Your task to perform on an android device: Clear all items from cart on ebay. Search for razer deathadder on ebay, select the first entry, add it to the cart, then select checkout. Image 0: 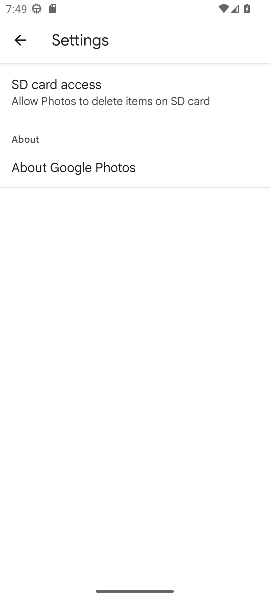
Step 0: press home button
Your task to perform on an android device: Clear all items from cart on ebay. Search for razer deathadder on ebay, select the first entry, add it to the cart, then select checkout. Image 1: 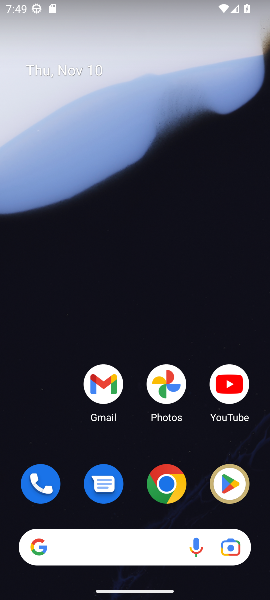
Step 1: click (166, 487)
Your task to perform on an android device: Clear all items from cart on ebay. Search for razer deathadder on ebay, select the first entry, add it to the cart, then select checkout. Image 2: 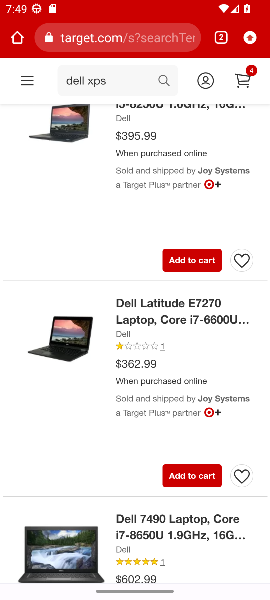
Step 2: click (102, 39)
Your task to perform on an android device: Clear all items from cart on ebay. Search for razer deathadder on ebay, select the first entry, add it to the cart, then select checkout. Image 3: 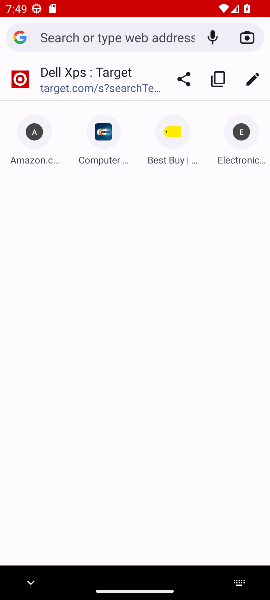
Step 3: type "ebay.com"
Your task to perform on an android device: Clear all items from cart on ebay. Search for razer deathadder on ebay, select the first entry, add it to the cart, then select checkout. Image 4: 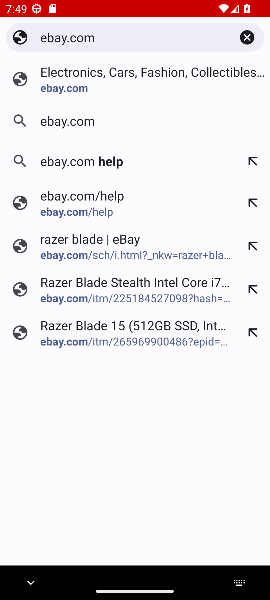
Step 4: click (69, 91)
Your task to perform on an android device: Clear all items from cart on ebay. Search for razer deathadder on ebay, select the first entry, add it to the cart, then select checkout. Image 5: 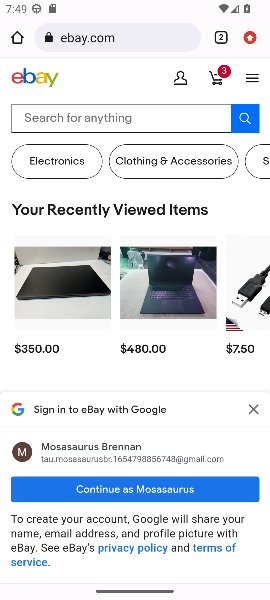
Step 5: click (219, 73)
Your task to perform on an android device: Clear all items from cart on ebay. Search for razer deathadder on ebay, select the first entry, add it to the cart, then select checkout. Image 6: 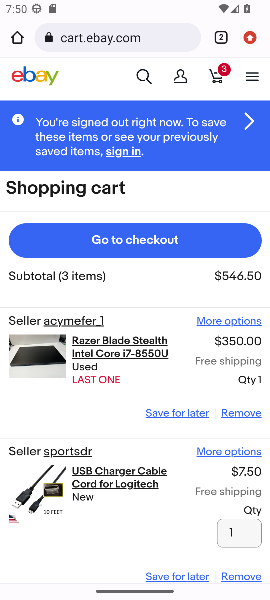
Step 6: click (243, 411)
Your task to perform on an android device: Clear all items from cart on ebay. Search for razer deathadder on ebay, select the first entry, add it to the cart, then select checkout. Image 7: 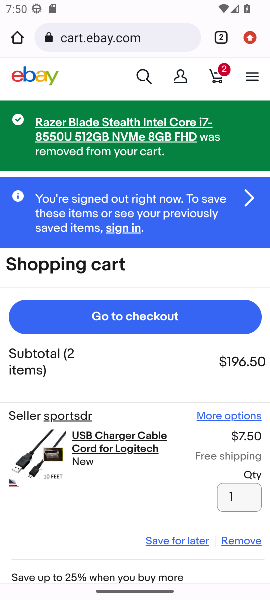
Step 7: click (232, 544)
Your task to perform on an android device: Clear all items from cart on ebay. Search for razer deathadder on ebay, select the first entry, add it to the cart, then select checkout. Image 8: 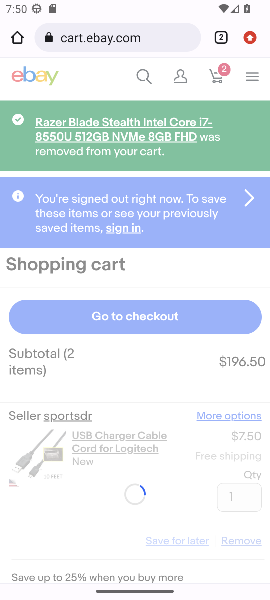
Step 8: drag from (165, 444) to (143, 303)
Your task to perform on an android device: Clear all items from cart on ebay. Search for razer deathadder on ebay, select the first entry, add it to the cart, then select checkout. Image 9: 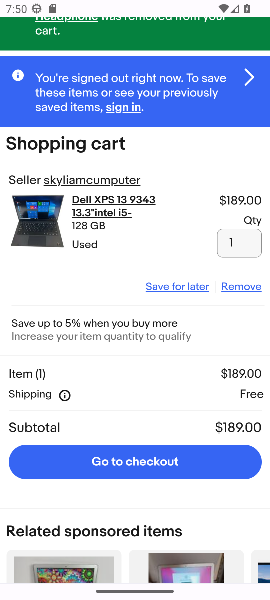
Step 9: click (242, 284)
Your task to perform on an android device: Clear all items from cart on ebay. Search for razer deathadder on ebay, select the first entry, add it to the cart, then select checkout. Image 10: 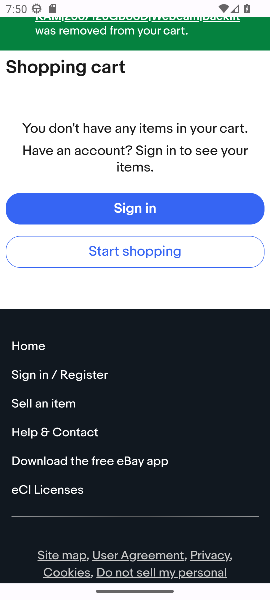
Step 10: drag from (242, 284) to (201, 481)
Your task to perform on an android device: Clear all items from cart on ebay. Search for razer deathadder on ebay, select the first entry, add it to the cart, then select checkout. Image 11: 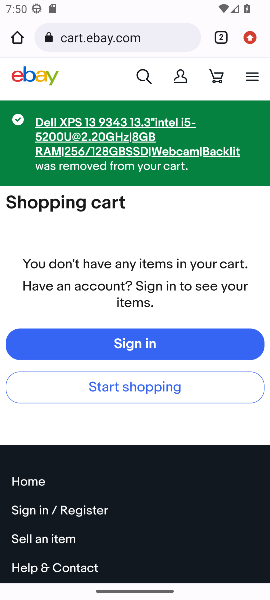
Step 11: click (140, 77)
Your task to perform on an android device: Clear all items from cart on ebay. Search for razer deathadder on ebay, select the first entry, add it to the cart, then select checkout. Image 12: 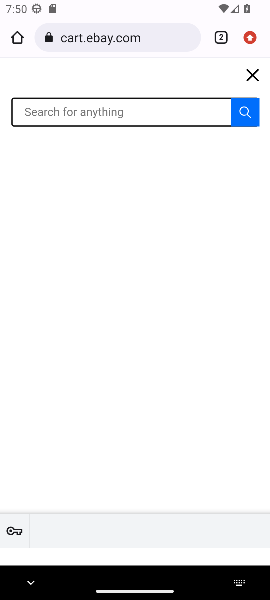
Step 12: type "razer deathadder"
Your task to perform on an android device: Clear all items from cart on ebay. Search for razer deathadder on ebay, select the first entry, add it to the cart, then select checkout. Image 13: 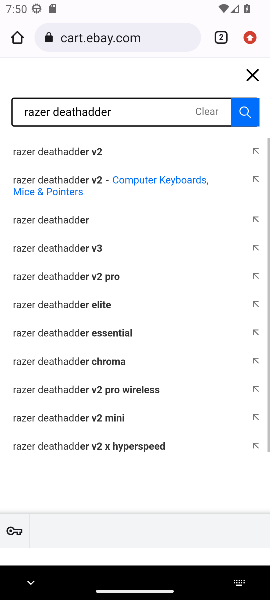
Step 13: click (81, 222)
Your task to perform on an android device: Clear all items from cart on ebay. Search for razer deathadder on ebay, select the first entry, add it to the cart, then select checkout. Image 14: 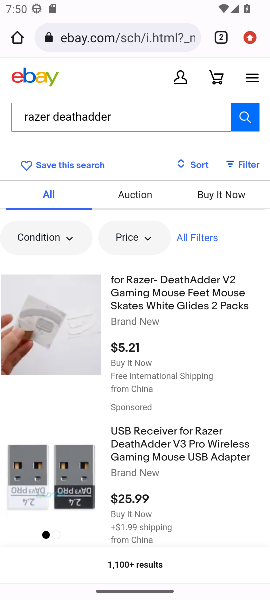
Step 14: click (79, 358)
Your task to perform on an android device: Clear all items from cart on ebay. Search for razer deathadder on ebay, select the first entry, add it to the cart, then select checkout. Image 15: 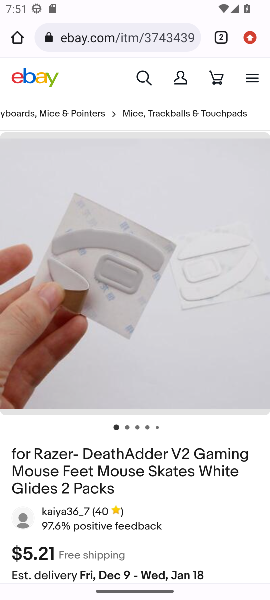
Step 15: drag from (94, 431) to (91, 219)
Your task to perform on an android device: Clear all items from cart on ebay. Search for razer deathadder on ebay, select the first entry, add it to the cart, then select checkout. Image 16: 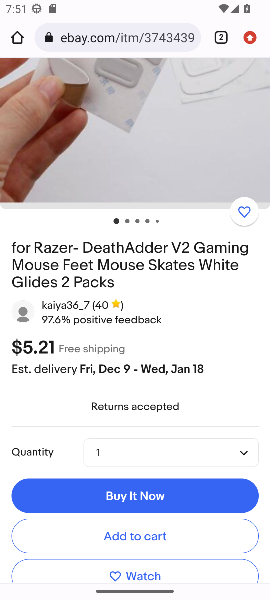
Step 16: click (145, 535)
Your task to perform on an android device: Clear all items from cart on ebay. Search for razer deathadder on ebay, select the first entry, add it to the cart, then select checkout. Image 17: 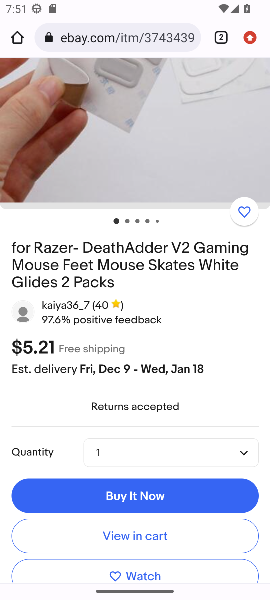
Step 17: click (145, 535)
Your task to perform on an android device: Clear all items from cart on ebay. Search for razer deathadder on ebay, select the first entry, add it to the cart, then select checkout. Image 18: 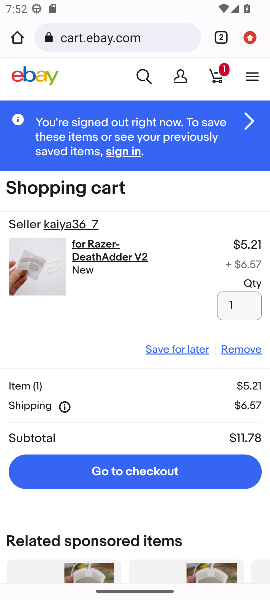
Step 18: click (103, 471)
Your task to perform on an android device: Clear all items from cart on ebay. Search for razer deathadder on ebay, select the first entry, add it to the cart, then select checkout. Image 19: 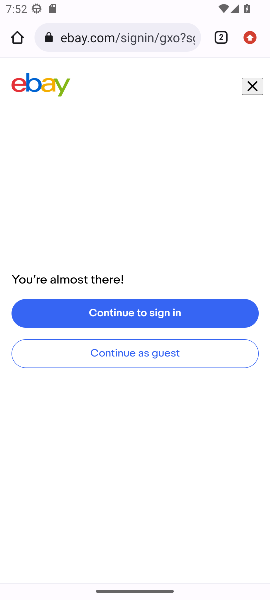
Step 19: task complete